Your task to perform on an android device: add a contact Image 0: 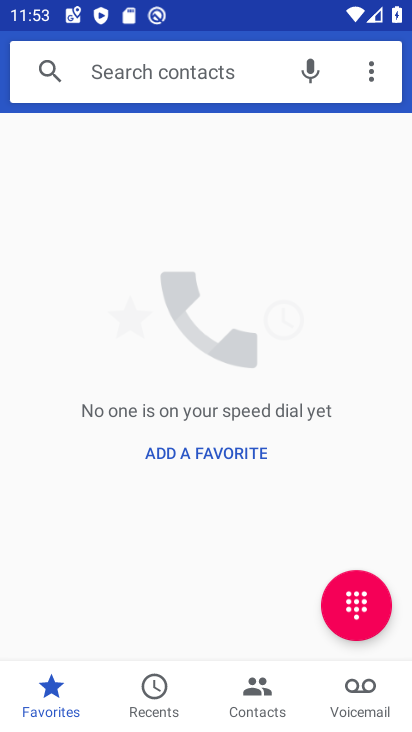
Step 0: press home button
Your task to perform on an android device: add a contact Image 1: 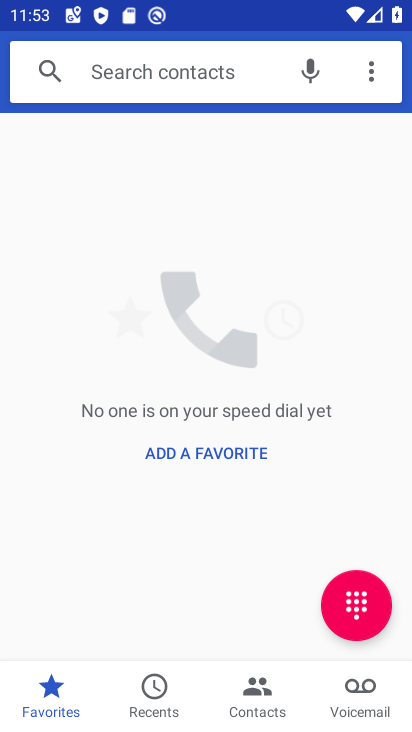
Step 1: press home button
Your task to perform on an android device: add a contact Image 2: 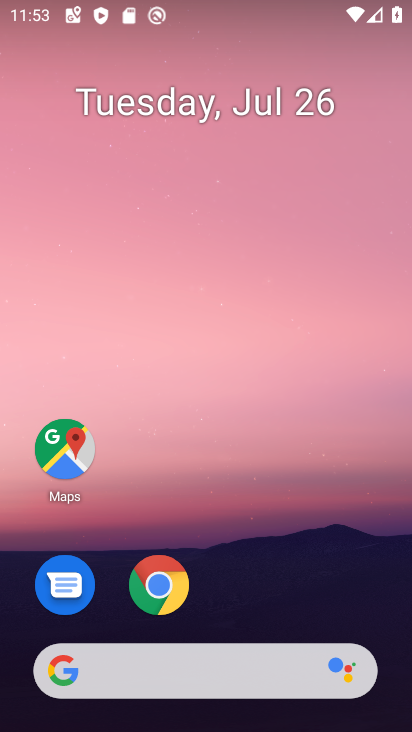
Step 2: drag from (265, 562) to (326, 38)
Your task to perform on an android device: add a contact Image 3: 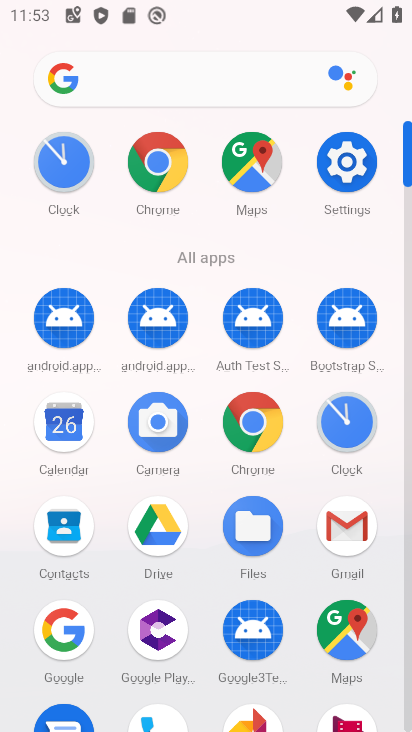
Step 3: click (60, 528)
Your task to perform on an android device: add a contact Image 4: 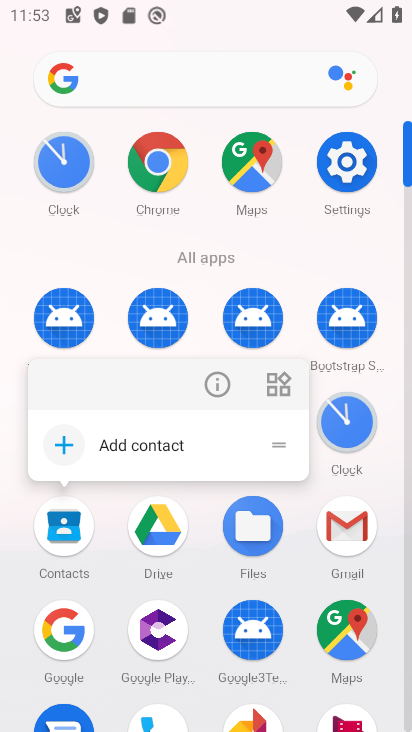
Step 4: click (60, 526)
Your task to perform on an android device: add a contact Image 5: 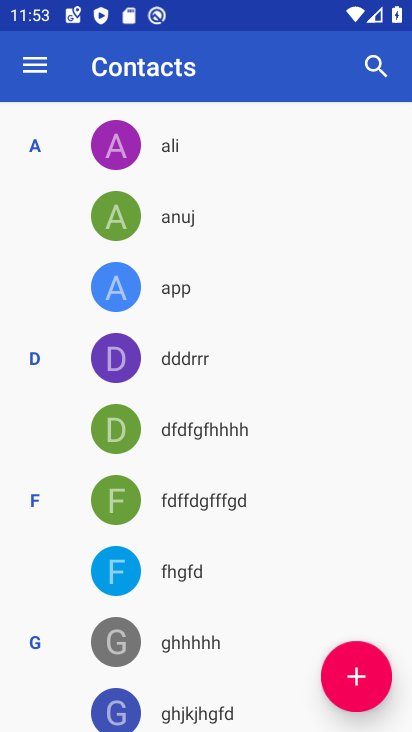
Step 5: click (353, 689)
Your task to perform on an android device: add a contact Image 6: 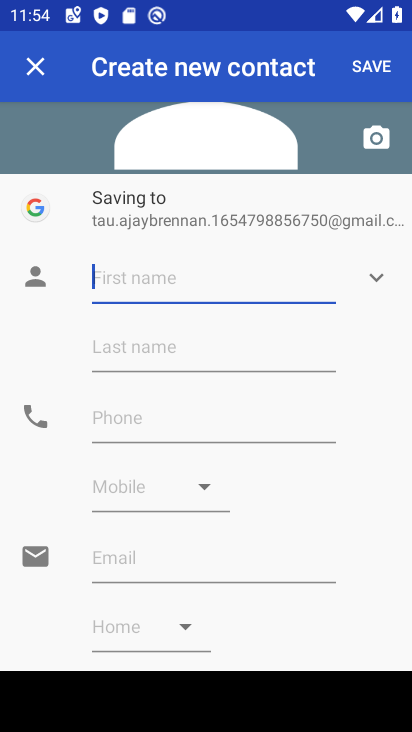
Step 6: type "Abha"
Your task to perform on an android device: add a contact Image 7: 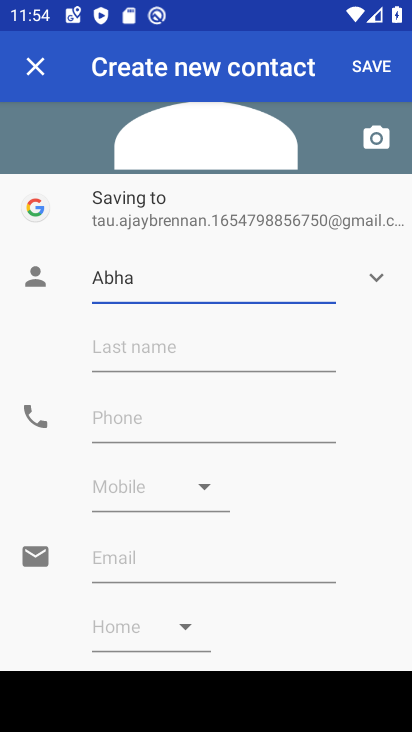
Step 7: click (152, 419)
Your task to perform on an android device: add a contact Image 8: 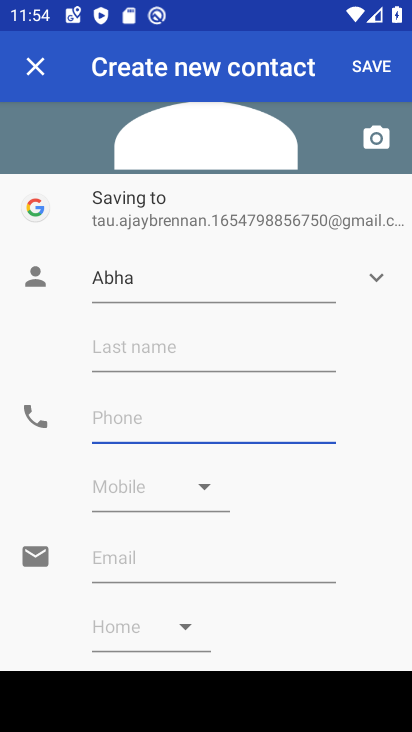
Step 8: type "+9199997654321"
Your task to perform on an android device: add a contact Image 9: 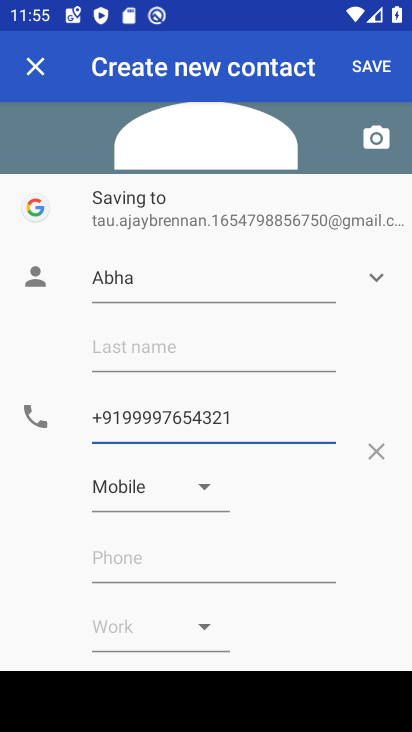
Step 9: click (373, 62)
Your task to perform on an android device: add a contact Image 10: 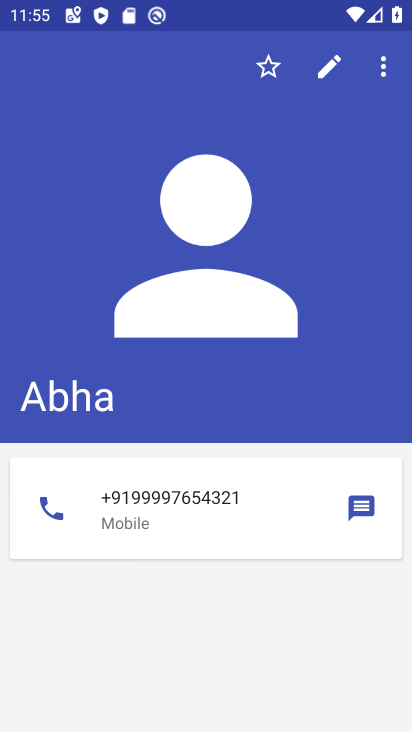
Step 10: task complete